Your task to perform on an android device: Play the last video I watched on Youtube Image 0: 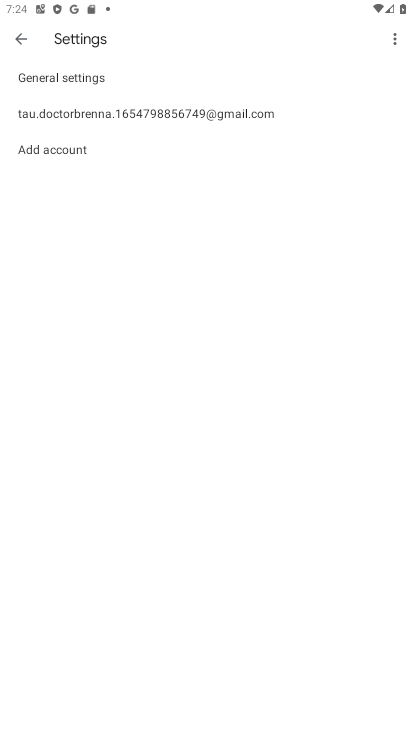
Step 0: press home button
Your task to perform on an android device: Play the last video I watched on Youtube Image 1: 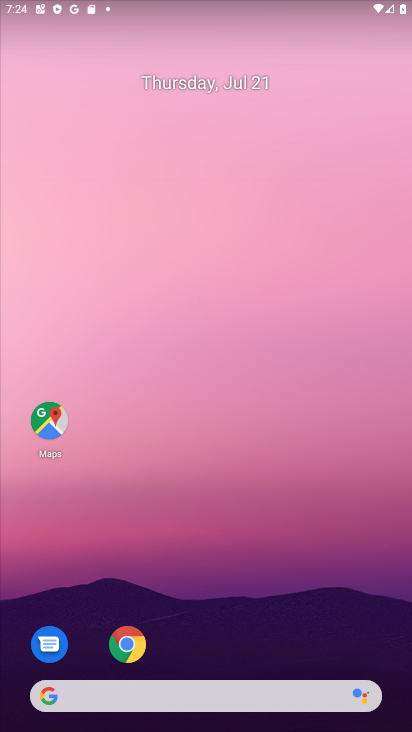
Step 1: drag from (226, 577) to (265, 241)
Your task to perform on an android device: Play the last video I watched on Youtube Image 2: 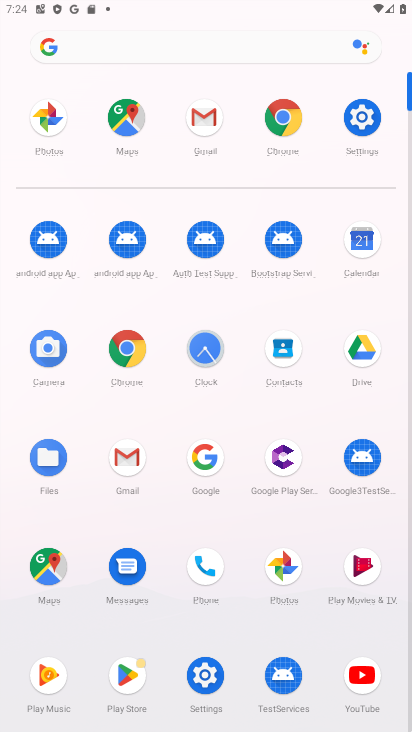
Step 2: click (364, 680)
Your task to perform on an android device: Play the last video I watched on Youtube Image 3: 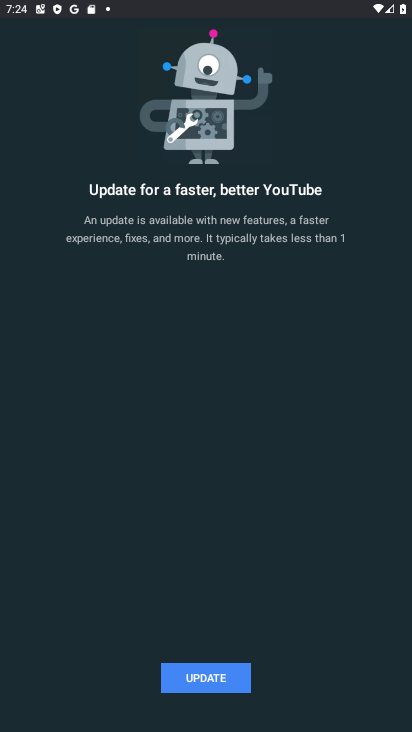
Step 3: task complete